Your task to perform on an android device: open app "Firefox Browser" (install if not already installed) Image 0: 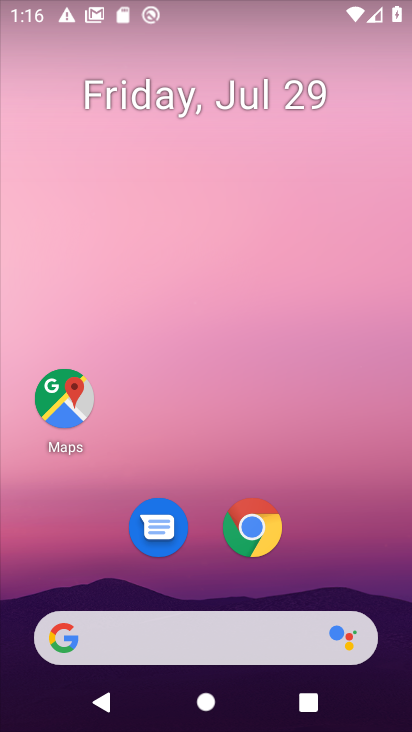
Step 0: drag from (243, 713) to (233, 6)
Your task to perform on an android device: open app "Firefox Browser" (install if not already installed) Image 1: 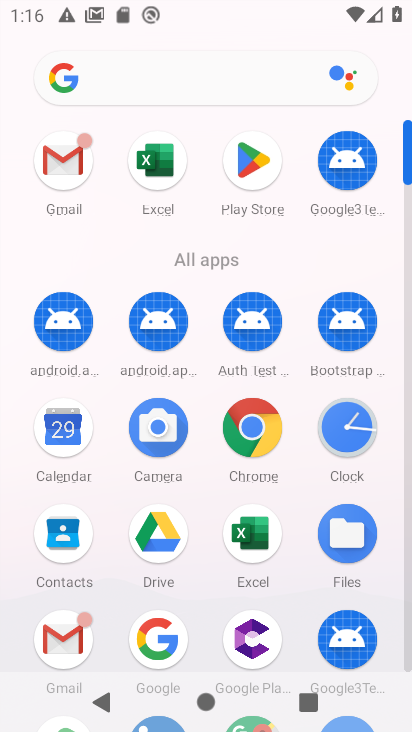
Step 1: click (251, 159)
Your task to perform on an android device: open app "Firefox Browser" (install if not already installed) Image 2: 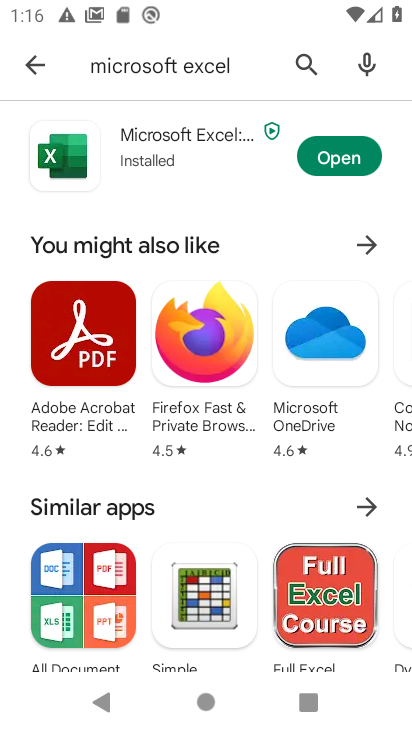
Step 2: click (306, 63)
Your task to perform on an android device: open app "Firefox Browser" (install if not already installed) Image 3: 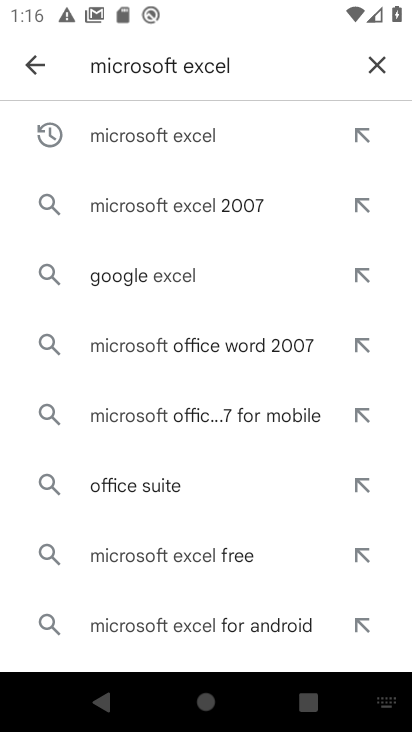
Step 3: click (379, 69)
Your task to perform on an android device: open app "Firefox Browser" (install if not already installed) Image 4: 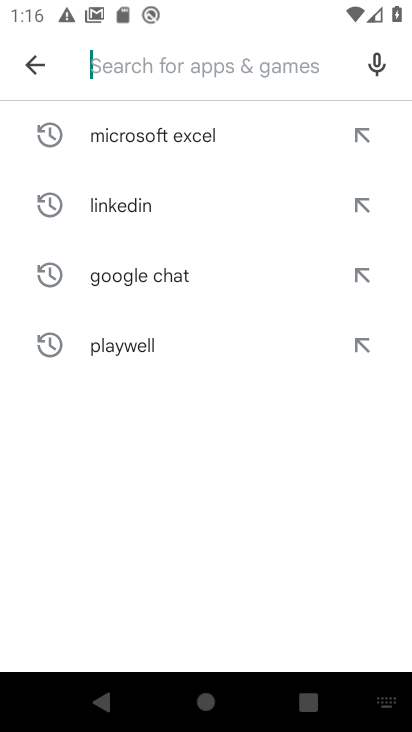
Step 4: type "Firefox Browser"
Your task to perform on an android device: open app "Firefox Browser" (install if not already installed) Image 5: 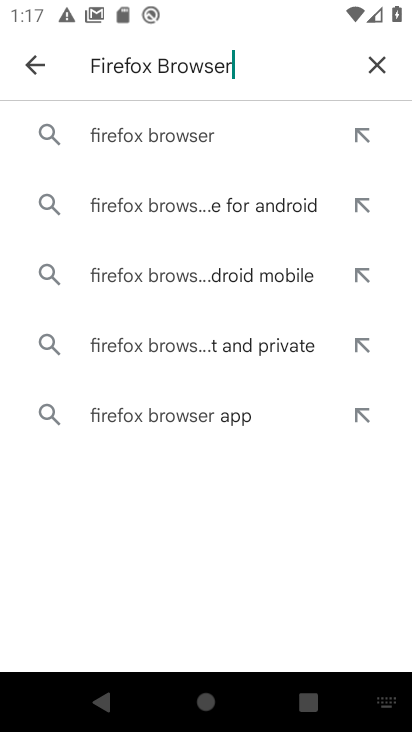
Step 5: click (147, 133)
Your task to perform on an android device: open app "Firefox Browser" (install if not already installed) Image 6: 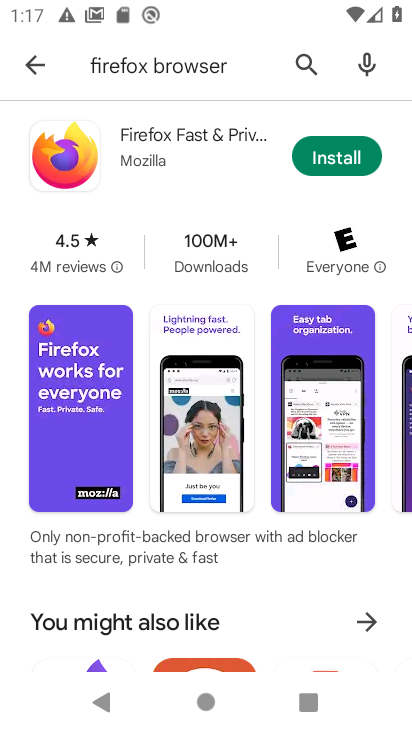
Step 6: click (336, 156)
Your task to perform on an android device: open app "Firefox Browser" (install if not already installed) Image 7: 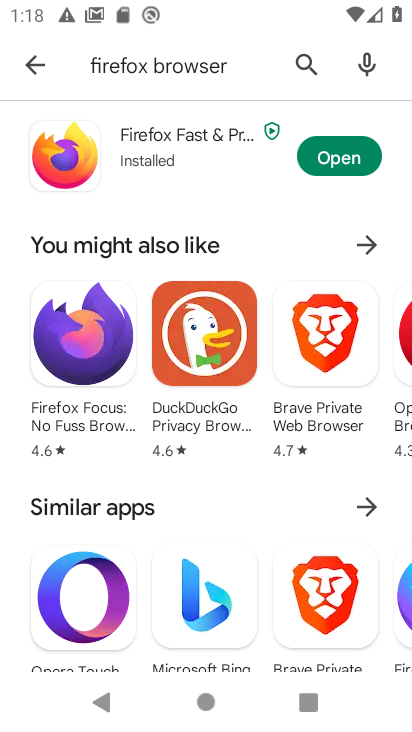
Step 7: task complete